Your task to perform on an android device: Open Chrome and go to the settings page Image 0: 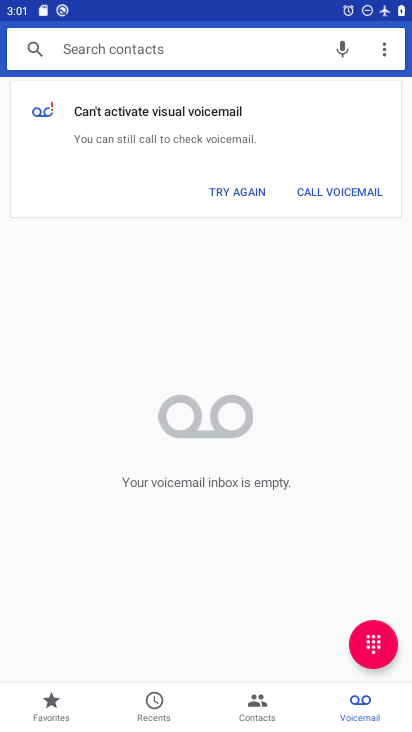
Step 0: press home button
Your task to perform on an android device: Open Chrome and go to the settings page Image 1: 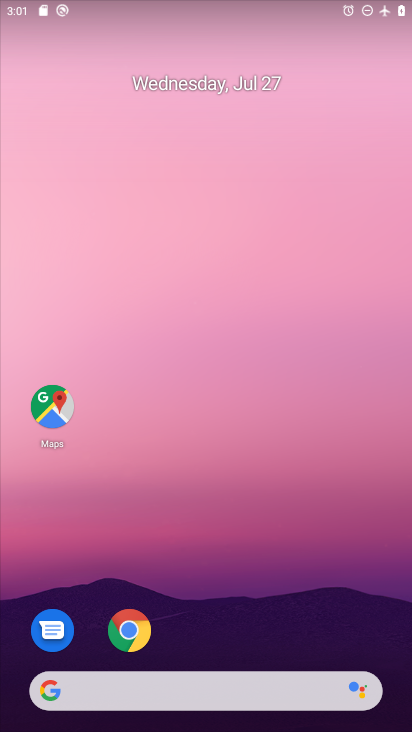
Step 1: click (129, 632)
Your task to perform on an android device: Open Chrome and go to the settings page Image 2: 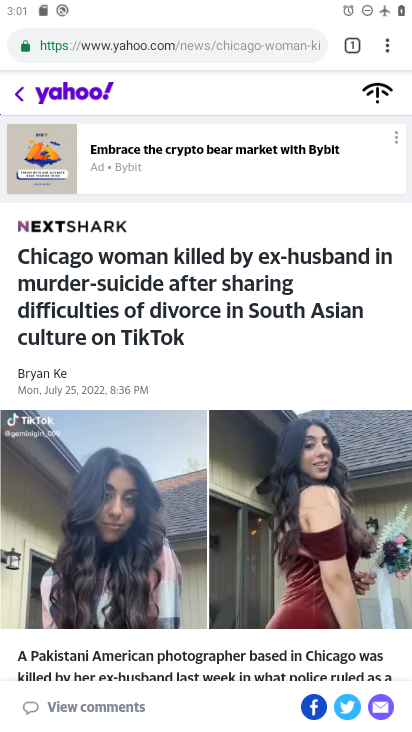
Step 2: click (385, 51)
Your task to perform on an android device: Open Chrome and go to the settings page Image 3: 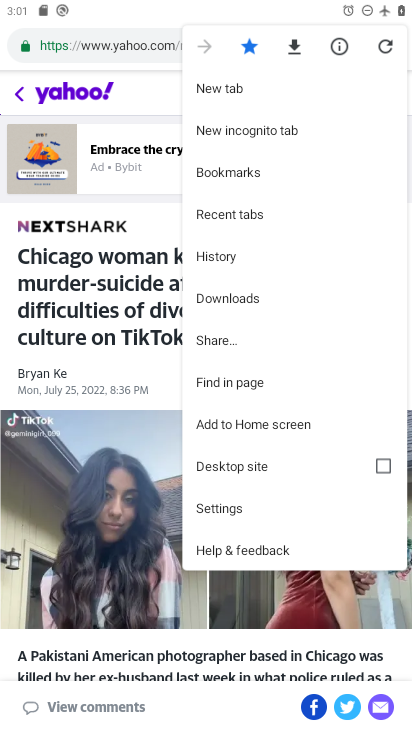
Step 3: click (226, 507)
Your task to perform on an android device: Open Chrome and go to the settings page Image 4: 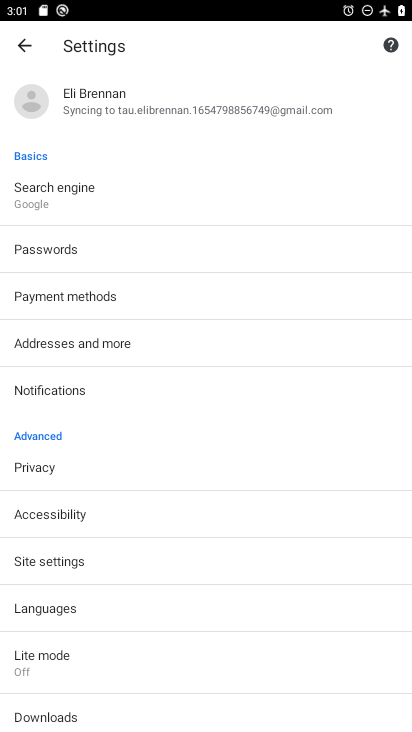
Step 4: task complete